Your task to perform on an android device: Open Amazon Image 0: 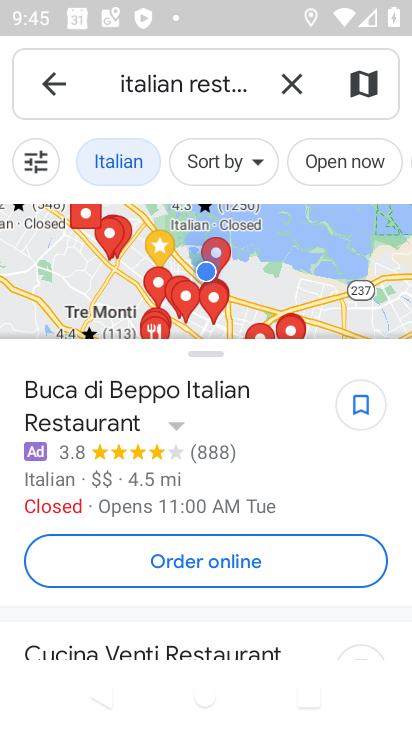
Step 0: press home button
Your task to perform on an android device: Open Amazon Image 1: 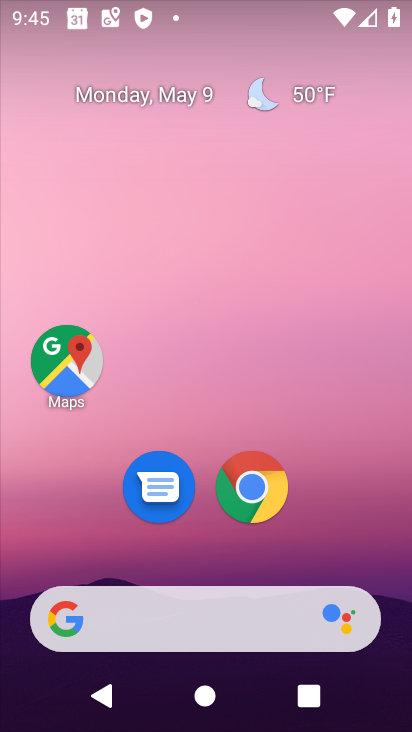
Step 1: click (278, 475)
Your task to perform on an android device: Open Amazon Image 2: 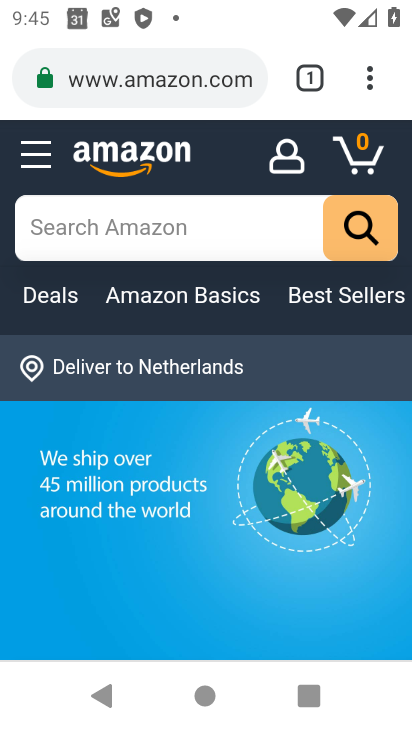
Step 2: task complete